Your task to perform on an android device: What's the weather going to be this weekend? Image 0: 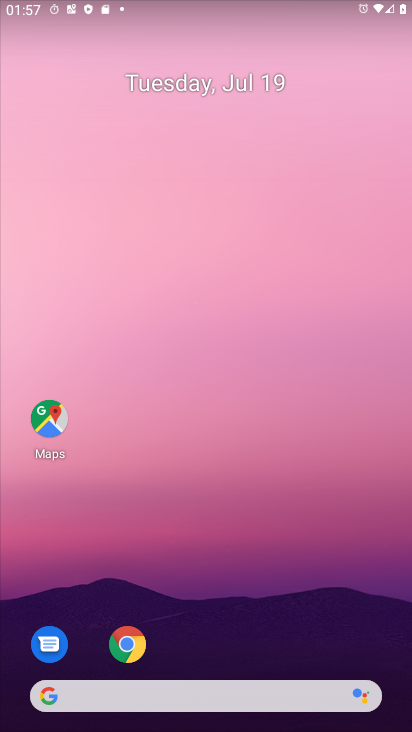
Step 0: drag from (216, 730) to (211, 130)
Your task to perform on an android device: What's the weather going to be this weekend? Image 1: 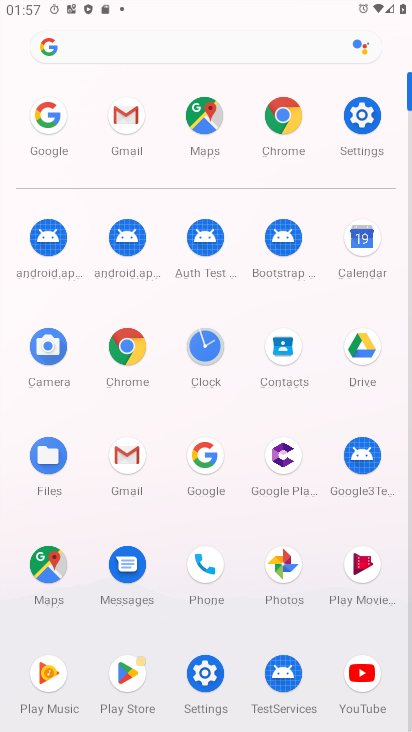
Step 1: click (203, 451)
Your task to perform on an android device: What's the weather going to be this weekend? Image 2: 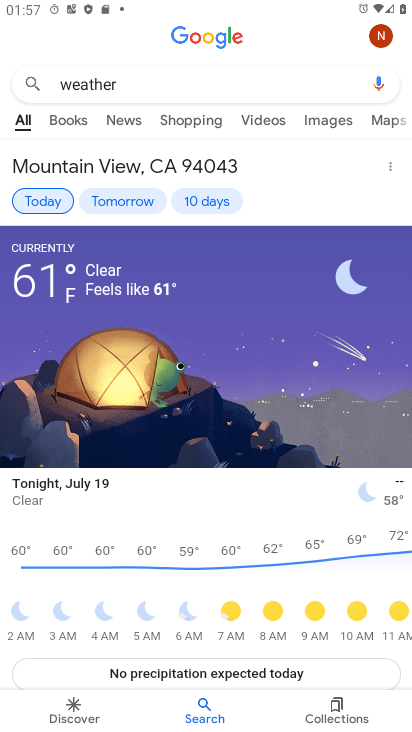
Step 2: click (204, 199)
Your task to perform on an android device: What's the weather going to be this weekend? Image 3: 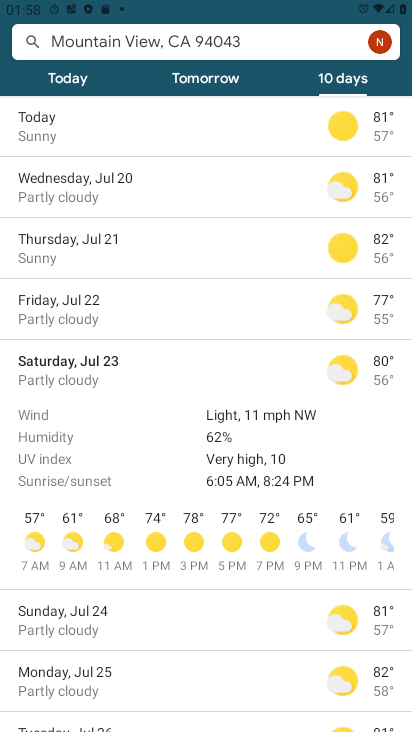
Step 3: task complete